Your task to perform on an android device: Toggle the flashlight Image 0: 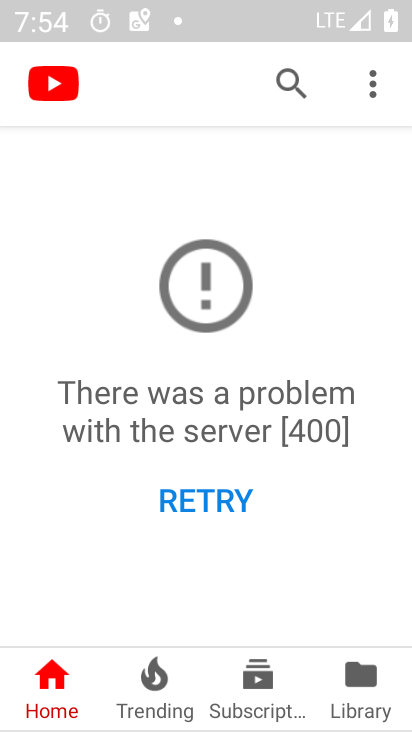
Step 0: press home button
Your task to perform on an android device: Toggle the flashlight Image 1: 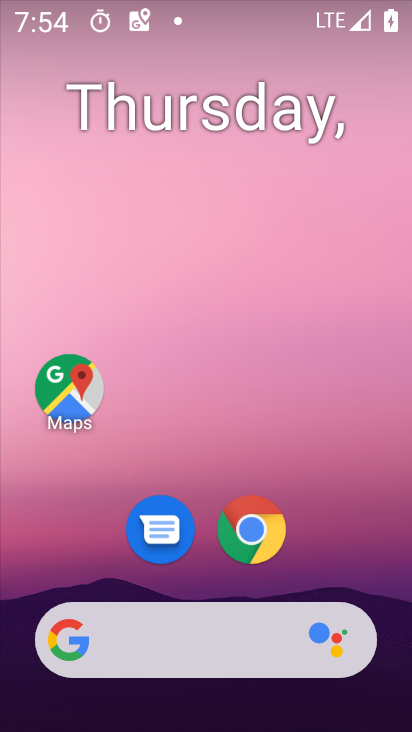
Step 1: drag from (252, 0) to (265, 329)
Your task to perform on an android device: Toggle the flashlight Image 2: 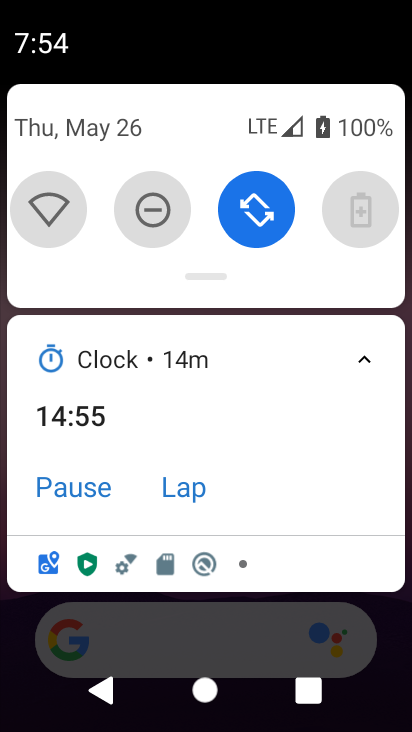
Step 2: drag from (207, 100) to (208, 358)
Your task to perform on an android device: Toggle the flashlight Image 3: 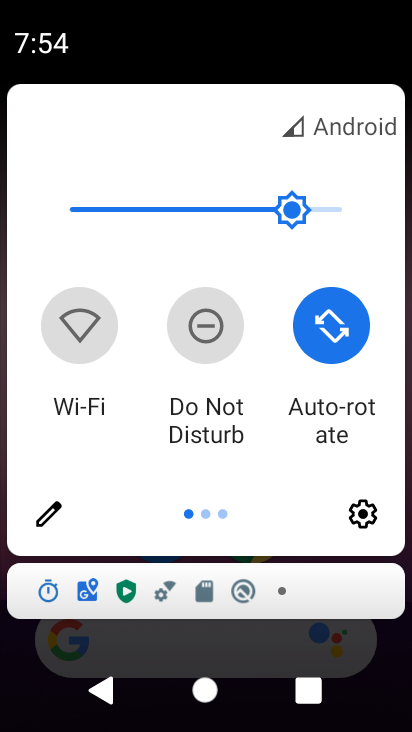
Step 3: click (51, 528)
Your task to perform on an android device: Toggle the flashlight Image 4: 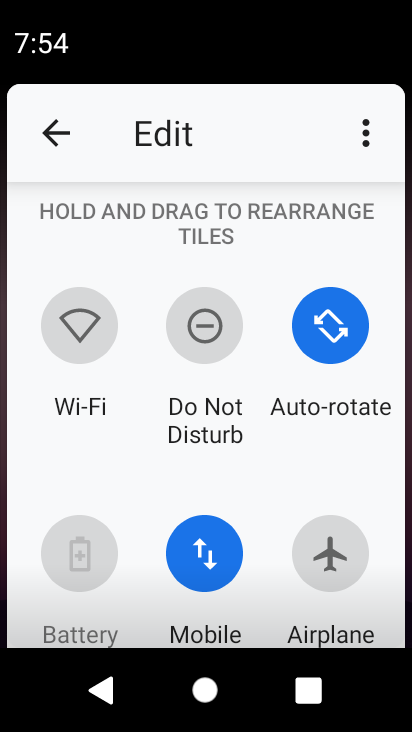
Step 4: task complete